Your task to perform on an android device: change the clock display to digital Image 0: 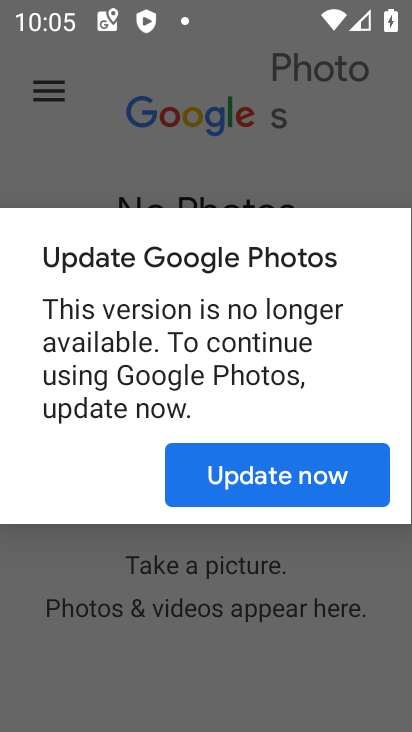
Step 0: press home button
Your task to perform on an android device: change the clock display to digital Image 1: 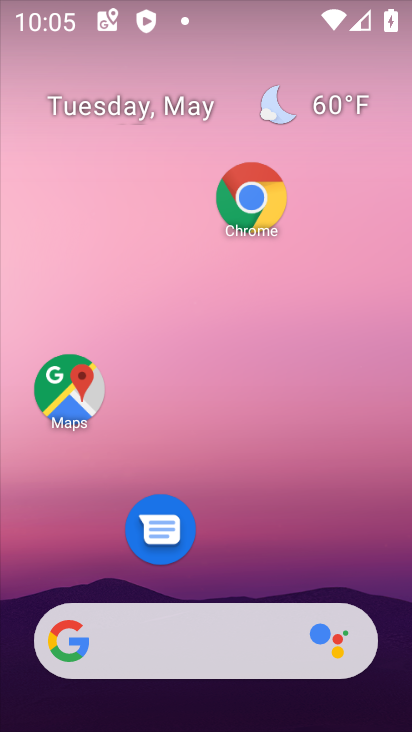
Step 1: drag from (177, 597) to (198, 243)
Your task to perform on an android device: change the clock display to digital Image 2: 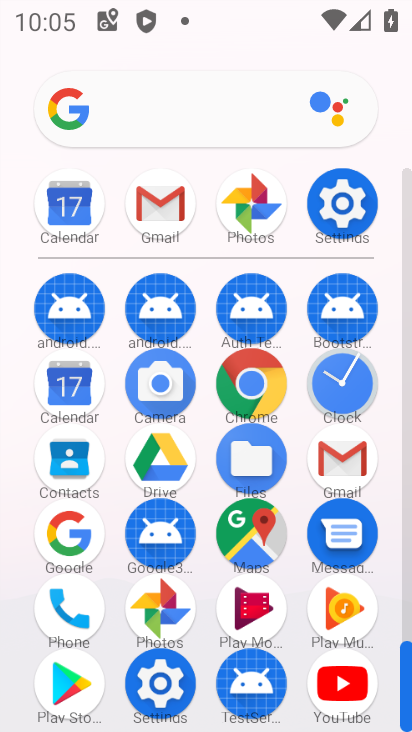
Step 2: click (332, 363)
Your task to perform on an android device: change the clock display to digital Image 3: 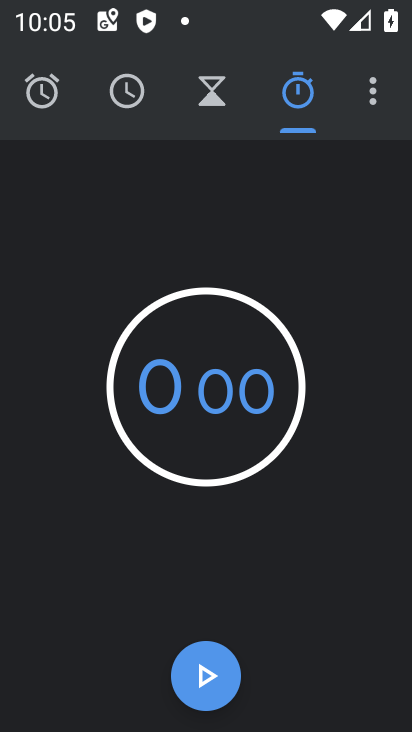
Step 3: click (369, 85)
Your task to perform on an android device: change the clock display to digital Image 4: 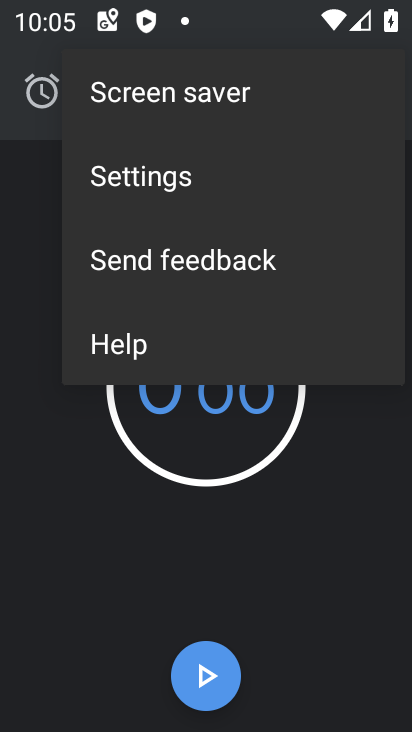
Step 4: click (106, 185)
Your task to perform on an android device: change the clock display to digital Image 5: 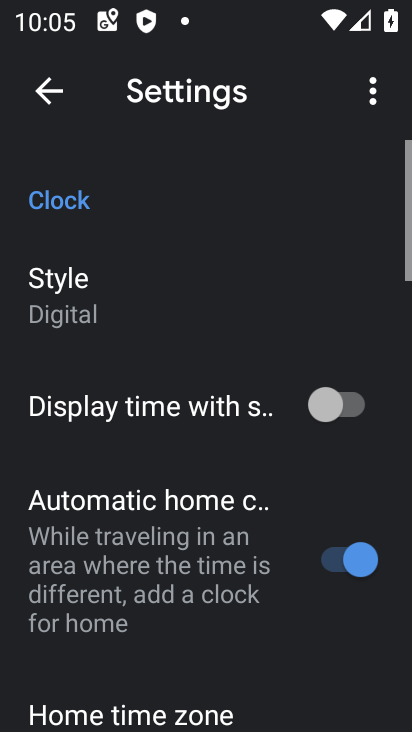
Step 5: click (21, 293)
Your task to perform on an android device: change the clock display to digital Image 6: 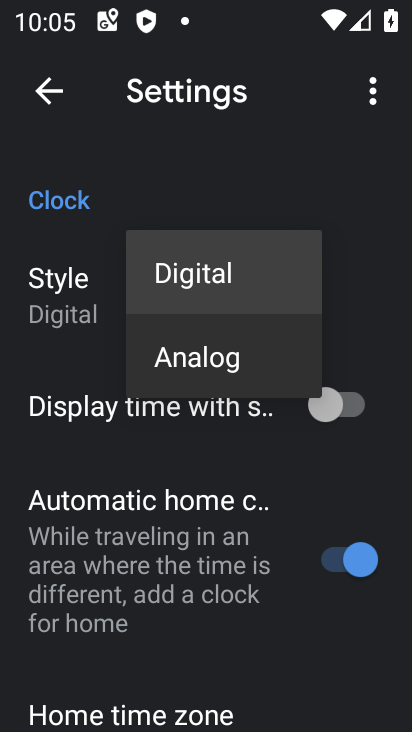
Step 6: click (196, 258)
Your task to perform on an android device: change the clock display to digital Image 7: 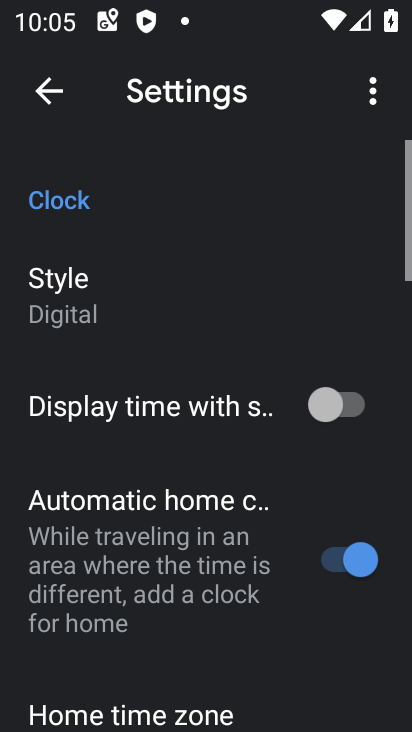
Step 7: task complete